Your task to perform on an android device: Go to Google maps Image 0: 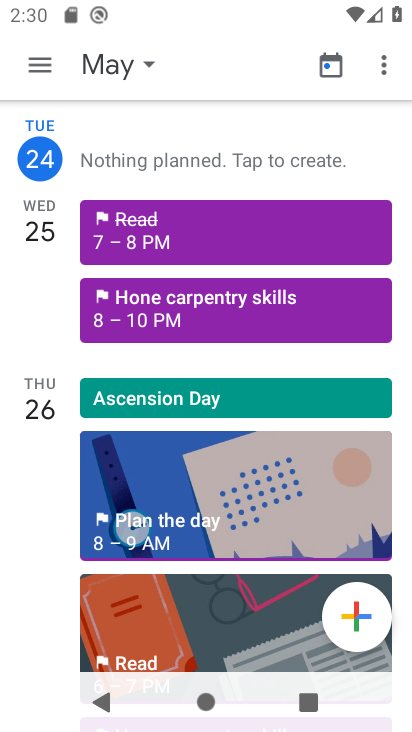
Step 0: press home button
Your task to perform on an android device: Go to Google maps Image 1: 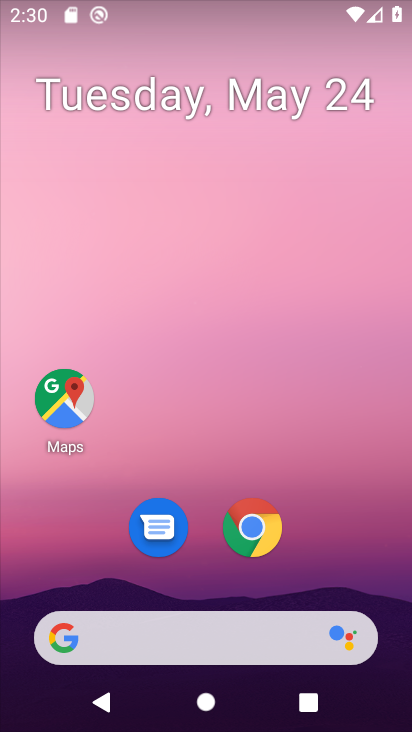
Step 1: click (65, 401)
Your task to perform on an android device: Go to Google maps Image 2: 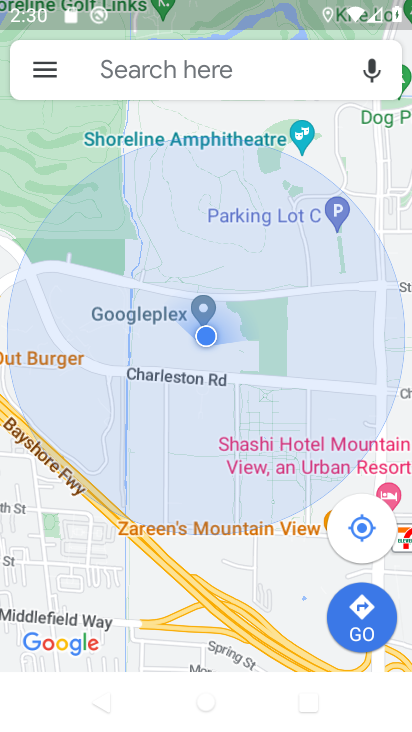
Step 2: task complete